Your task to perform on an android device: toggle notifications settings in the gmail app Image 0: 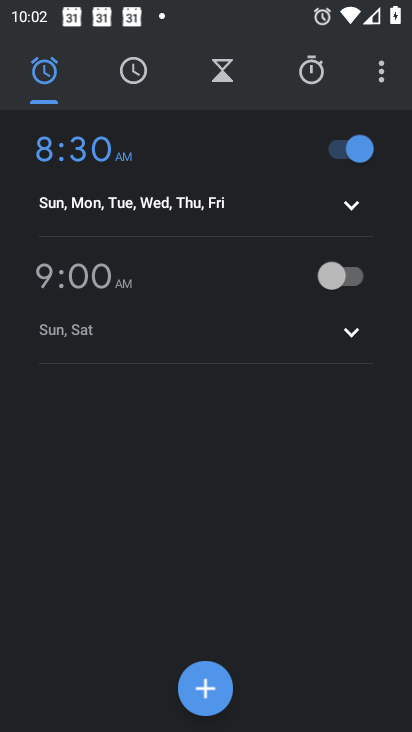
Step 0: press home button
Your task to perform on an android device: toggle notifications settings in the gmail app Image 1: 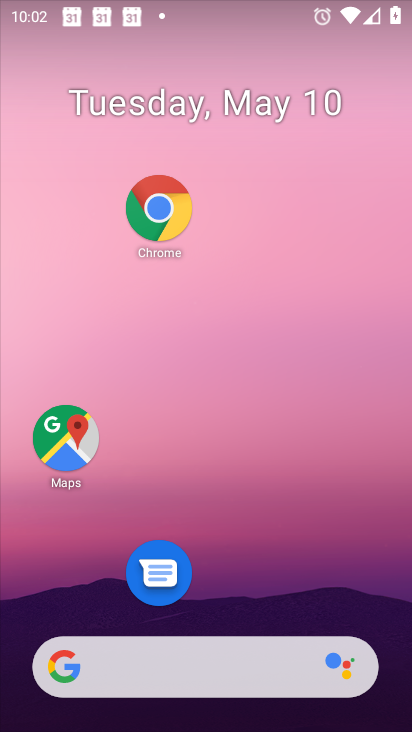
Step 1: drag from (301, 629) to (339, 296)
Your task to perform on an android device: toggle notifications settings in the gmail app Image 2: 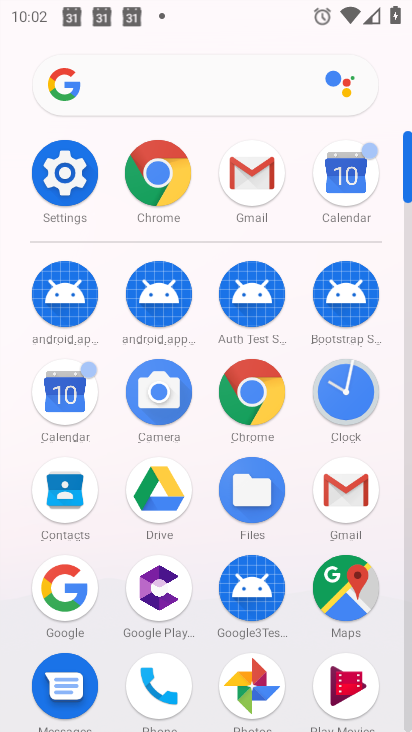
Step 2: click (263, 161)
Your task to perform on an android device: toggle notifications settings in the gmail app Image 3: 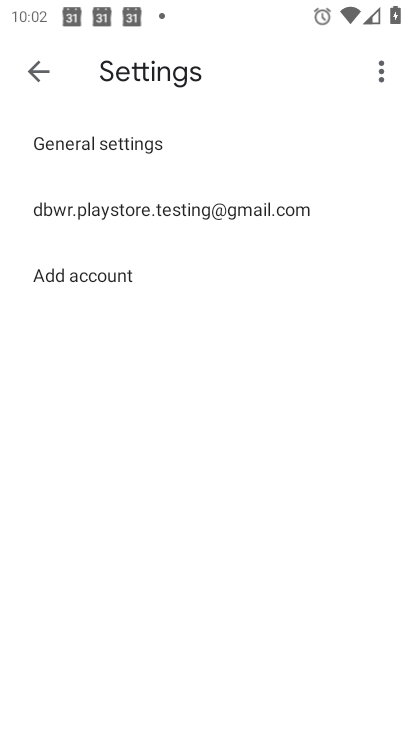
Step 3: click (207, 198)
Your task to perform on an android device: toggle notifications settings in the gmail app Image 4: 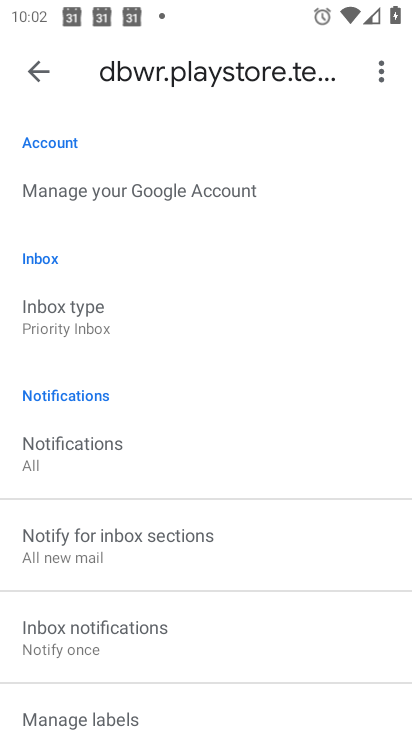
Step 4: click (97, 446)
Your task to perform on an android device: toggle notifications settings in the gmail app Image 5: 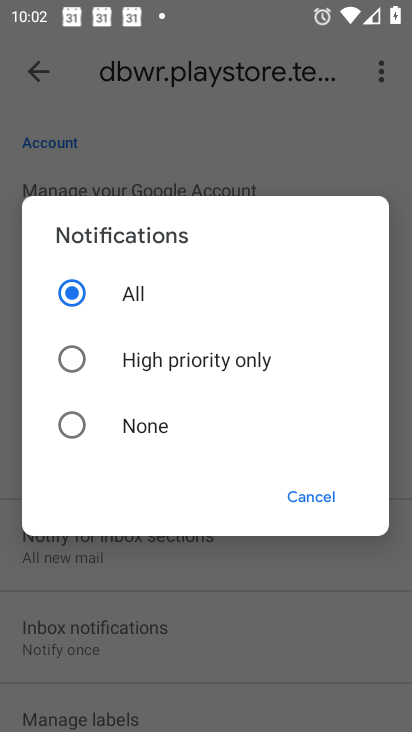
Step 5: task complete